Your task to perform on an android device: Show me productivity apps on the Play Store Image 0: 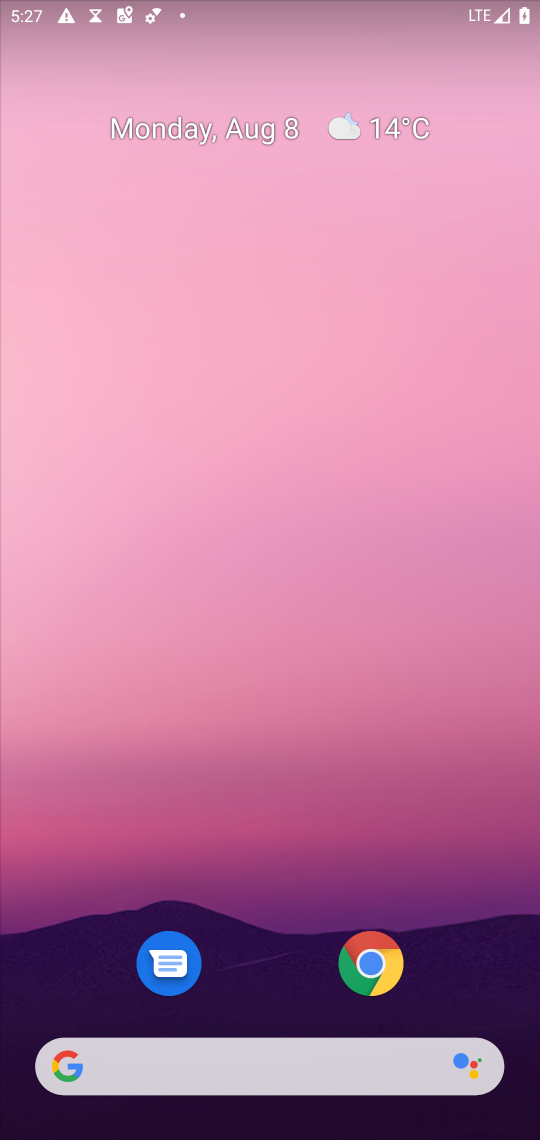
Step 0: drag from (232, 941) to (146, 154)
Your task to perform on an android device: Show me productivity apps on the Play Store Image 1: 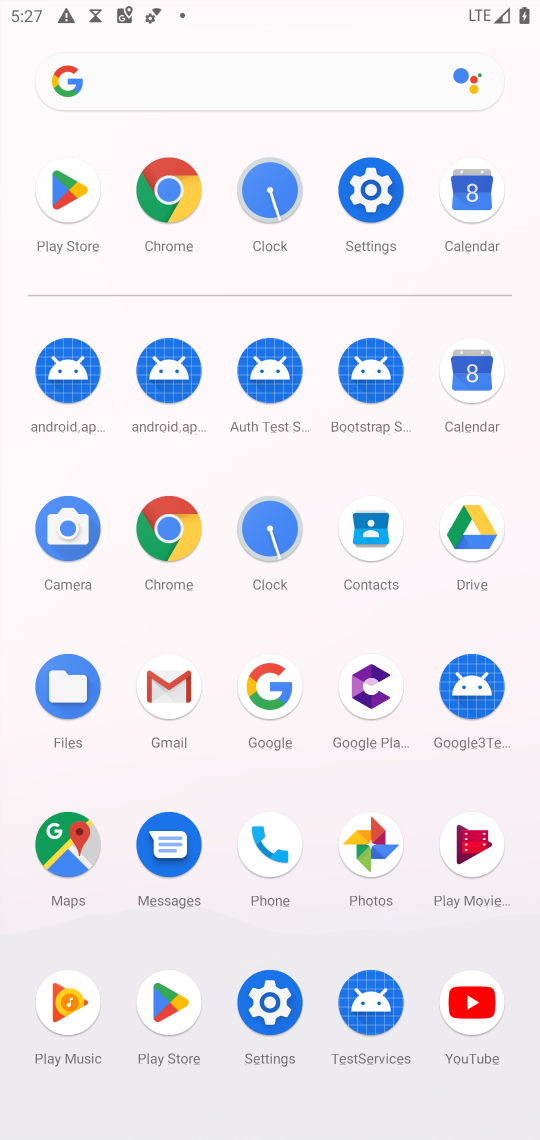
Step 1: click (168, 1001)
Your task to perform on an android device: Show me productivity apps on the Play Store Image 2: 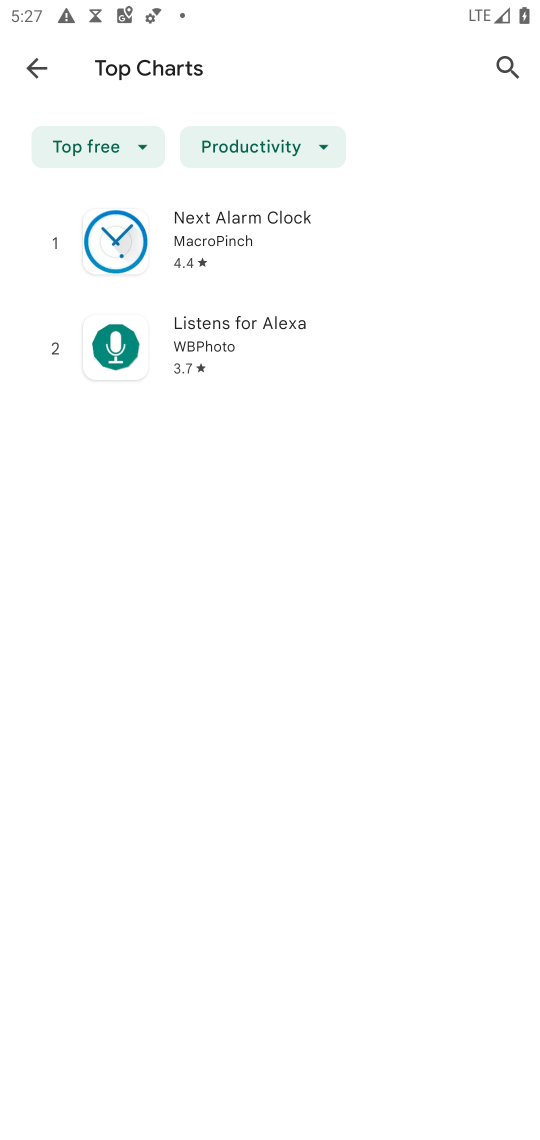
Step 2: task complete